Your task to perform on an android device: Open Google Chrome Image 0: 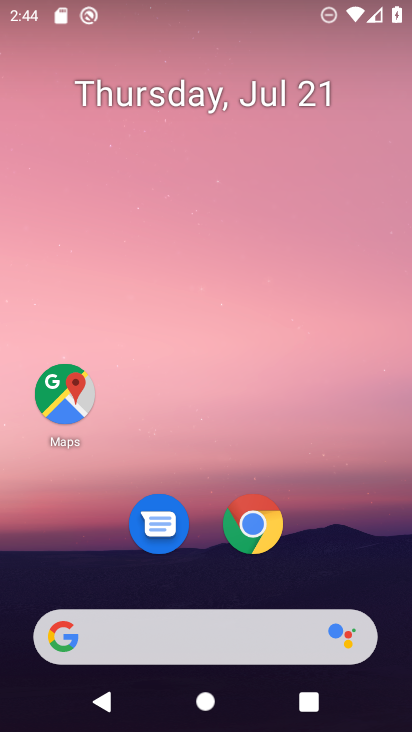
Step 0: press home button
Your task to perform on an android device: Open Google Chrome Image 1: 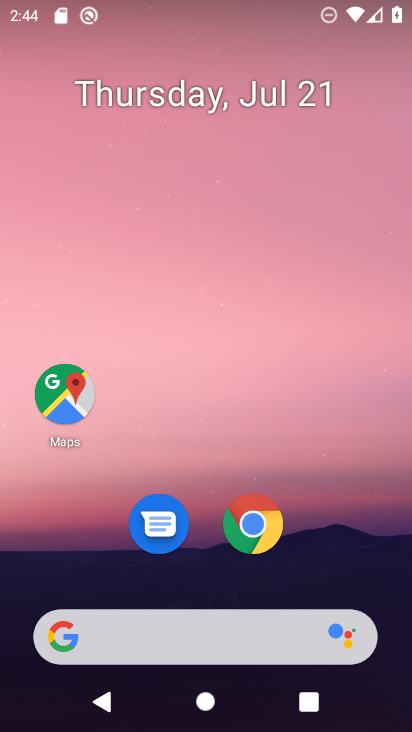
Step 1: click (245, 522)
Your task to perform on an android device: Open Google Chrome Image 2: 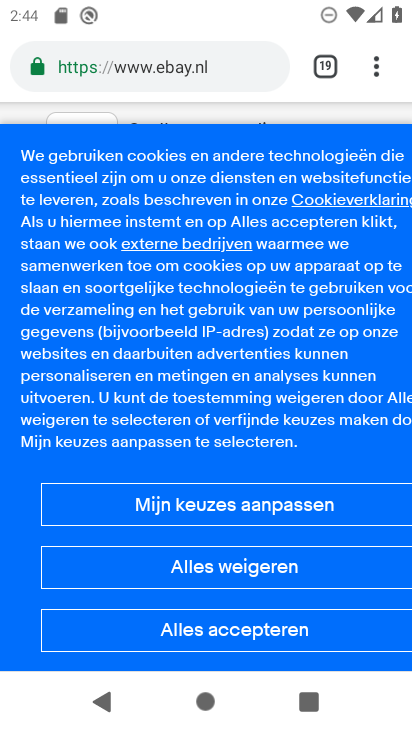
Step 2: task complete